Your task to perform on an android device: Open Reddit.com Image 0: 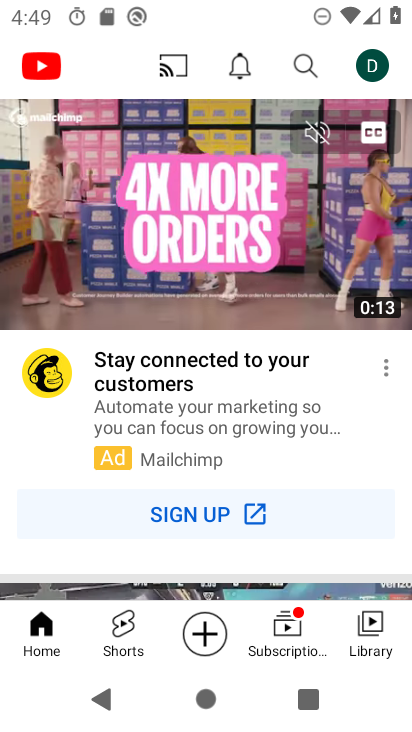
Step 0: press back button
Your task to perform on an android device: Open Reddit.com Image 1: 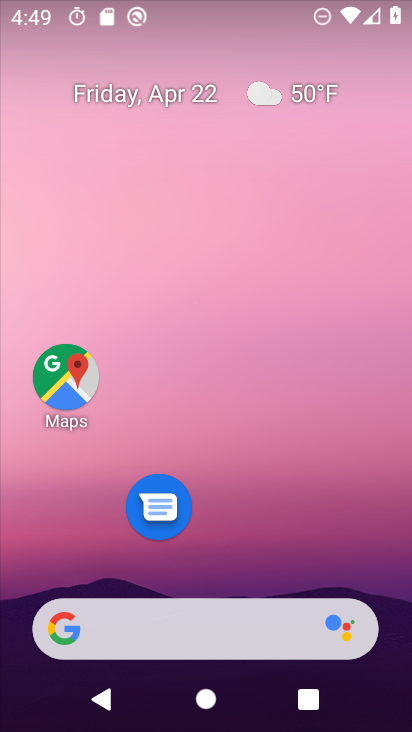
Step 1: drag from (232, 548) to (310, 51)
Your task to perform on an android device: Open Reddit.com Image 2: 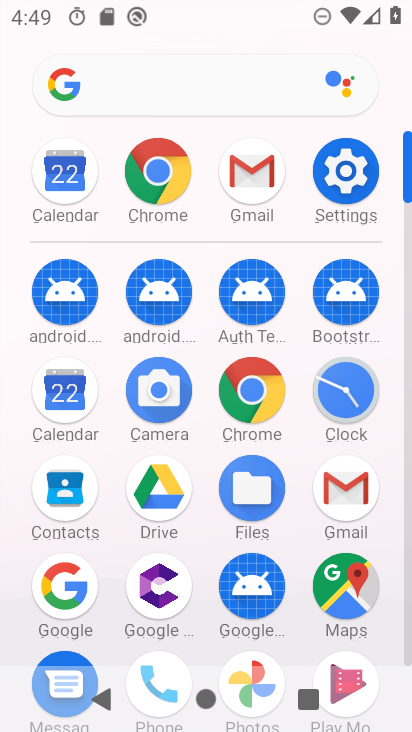
Step 2: click (155, 162)
Your task to perform on an android device: Open Reddit.com Image 3: 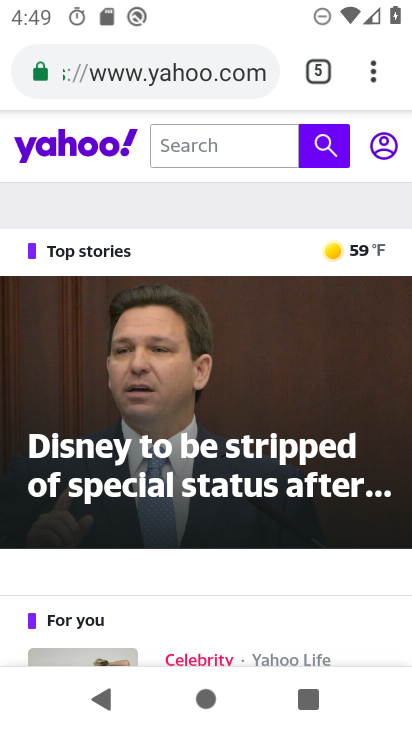
Step 3: click (319, 71)
Your task to perform on an android device: Open Reddit.com Image 4: 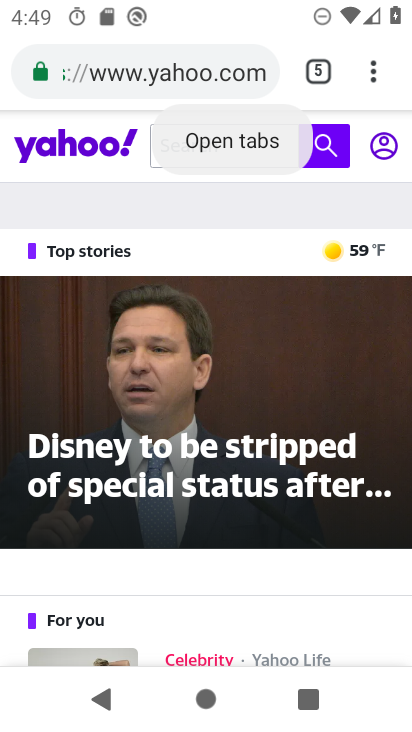
Step 4: click (320, 79)
Your task to perform on an android device: Open Reddit.com Image 5: 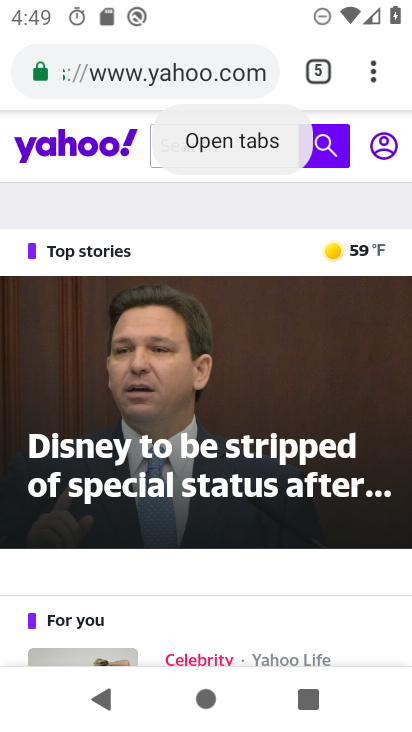
Step 5: click (318, 69)
Your task to perform on an android device: Open Reddit.com Image 6: 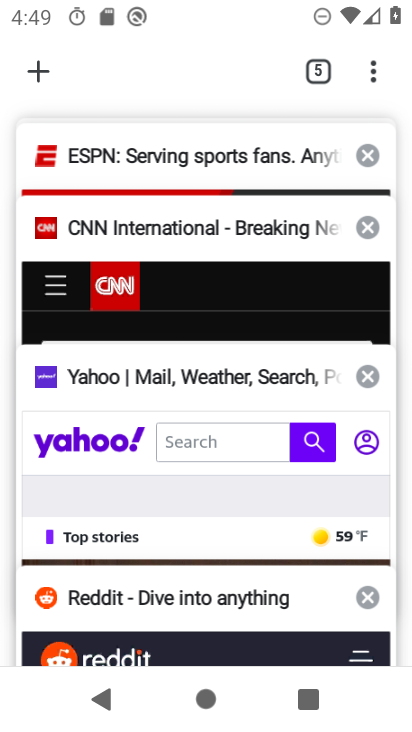
Step 6: drag from (211, 242) to (255, 91)
Your task to perform on an android device: Open Reddit.com Image 7: 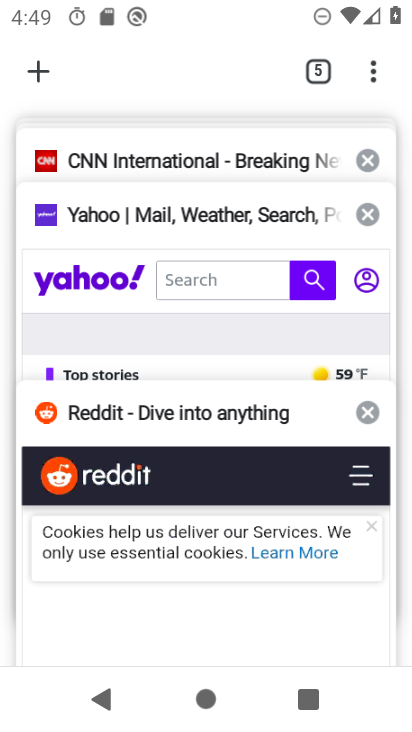
Step 7: click (133, 408)
Your task to perform on an android device: Open Reddit.com Image 8: 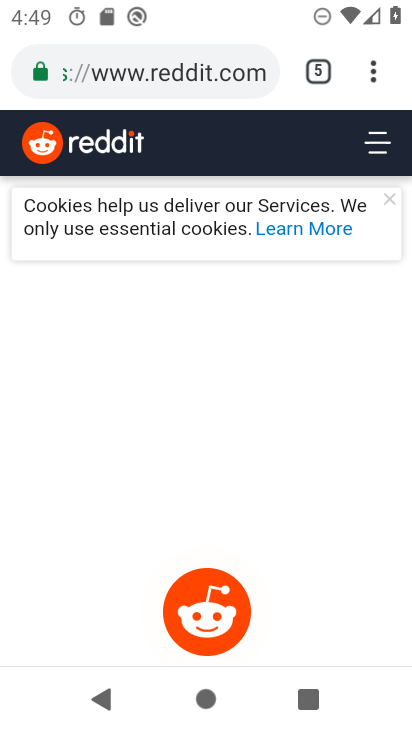
Step 8: task complete